Your task to perform on an android device: Install the News app Image 0: 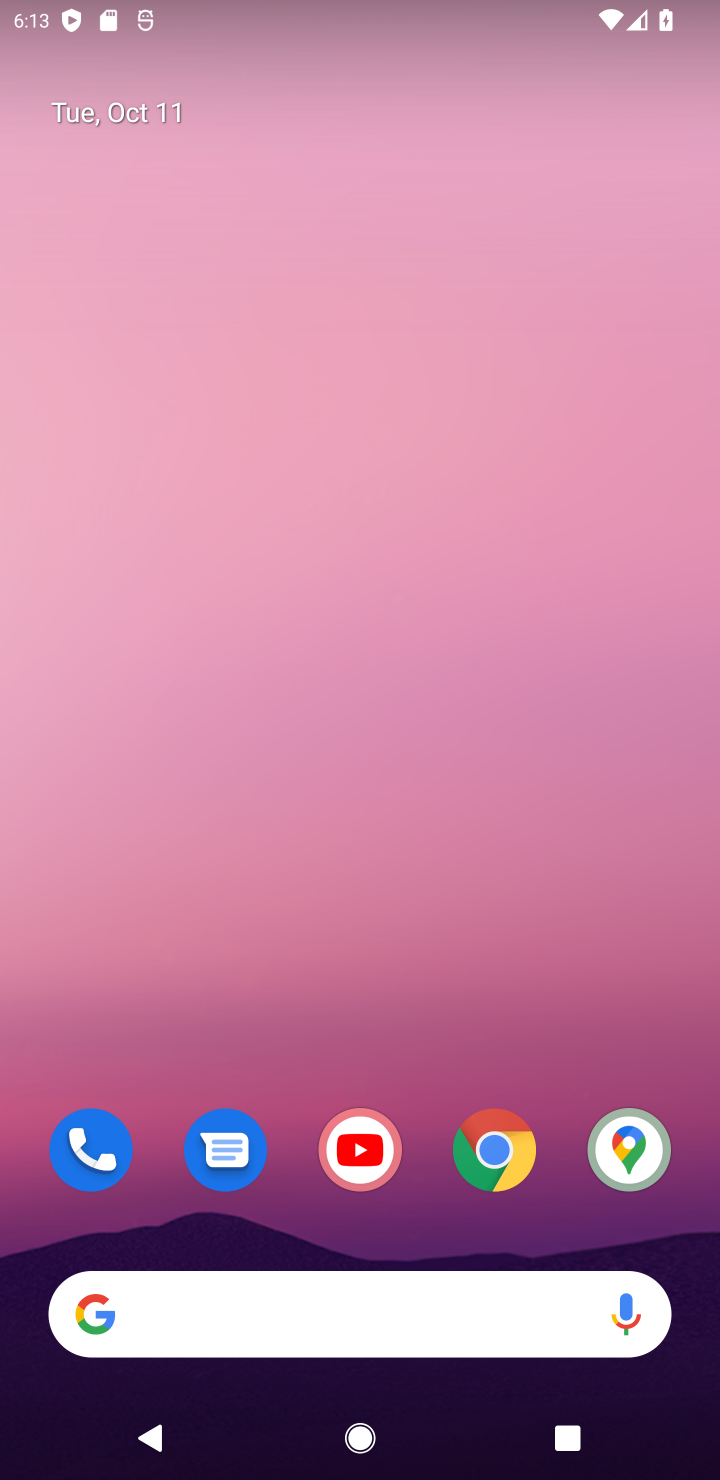
Step 0: drag from (555, 1207) to (568, 232)
Your task to perform on an android device: Install the News app Image 1: 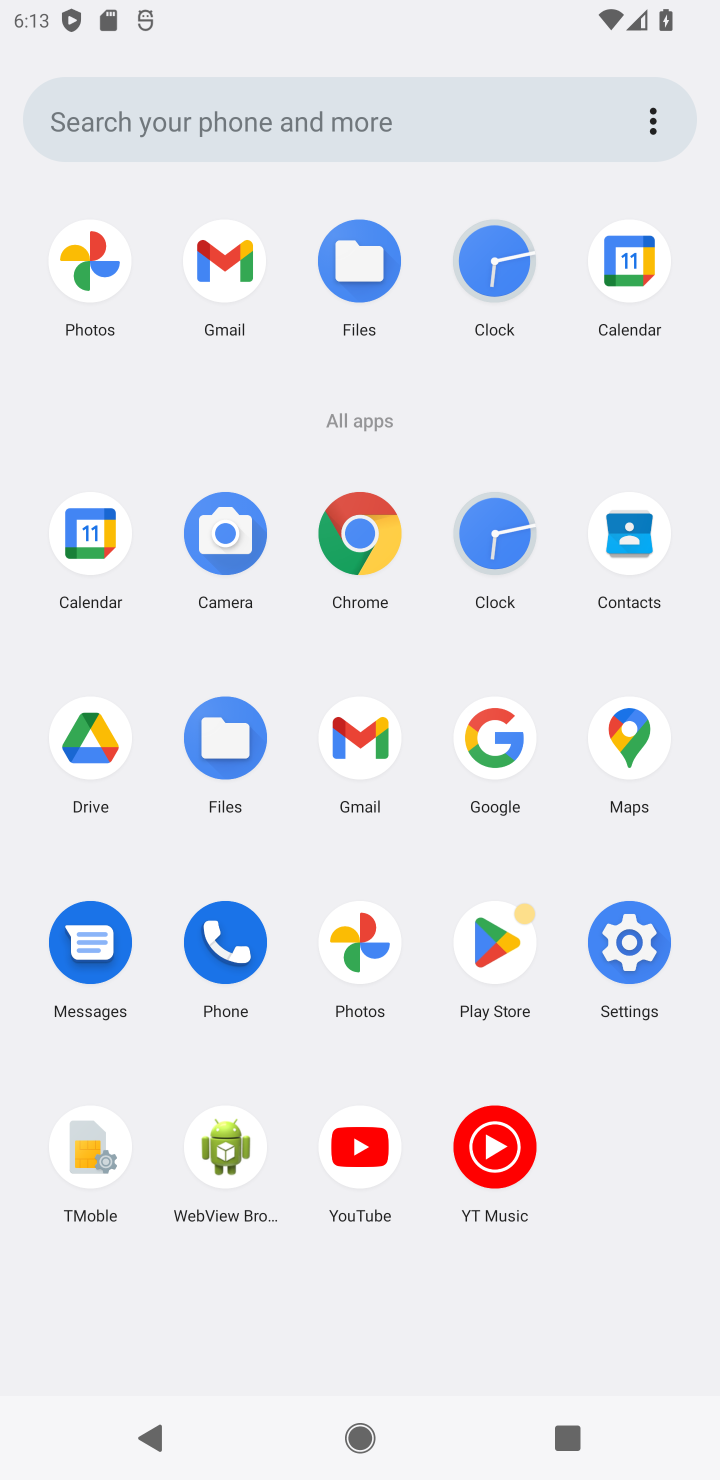
Step 1: click (497, 938)
Your task to perform on an android device: Install the News app Image 2: 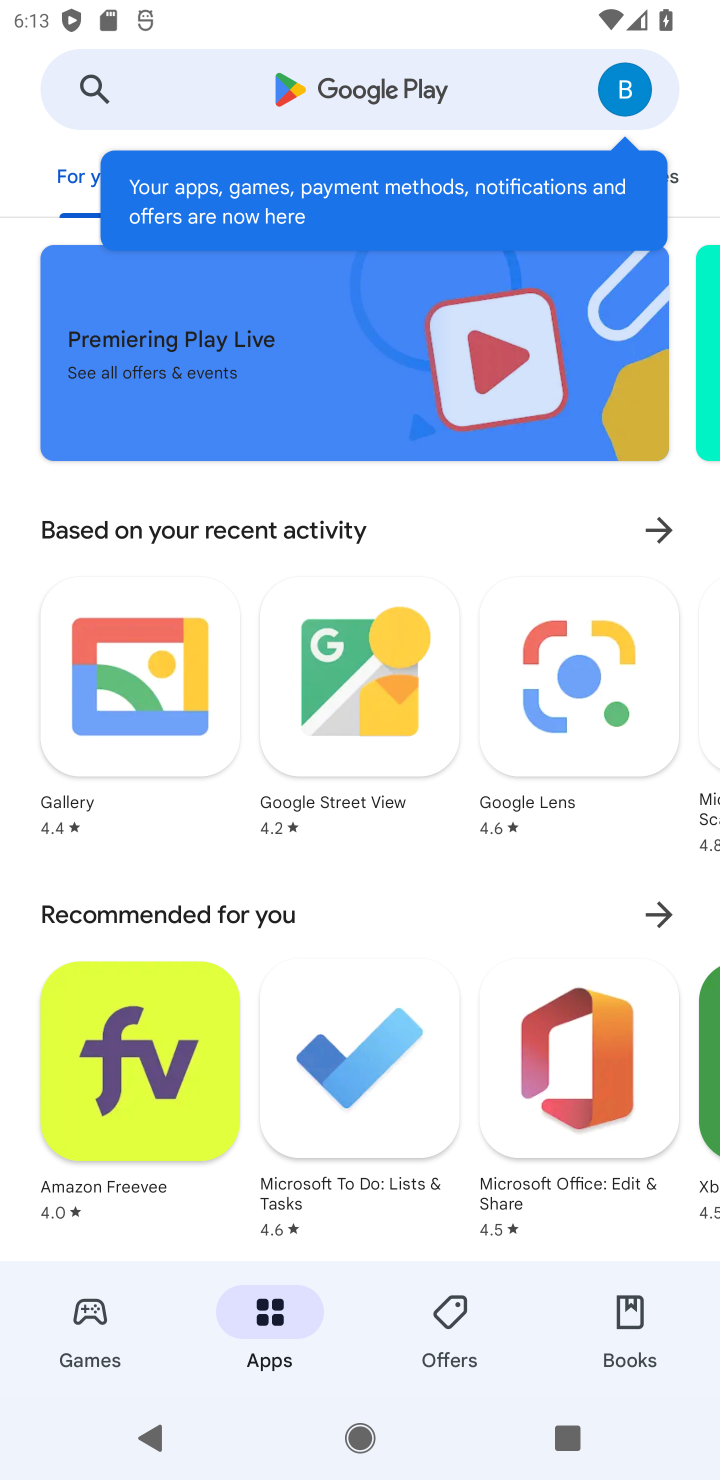
Step 2: click (324, 94)
Your task to perform on an android device: Install the News app Image 3: 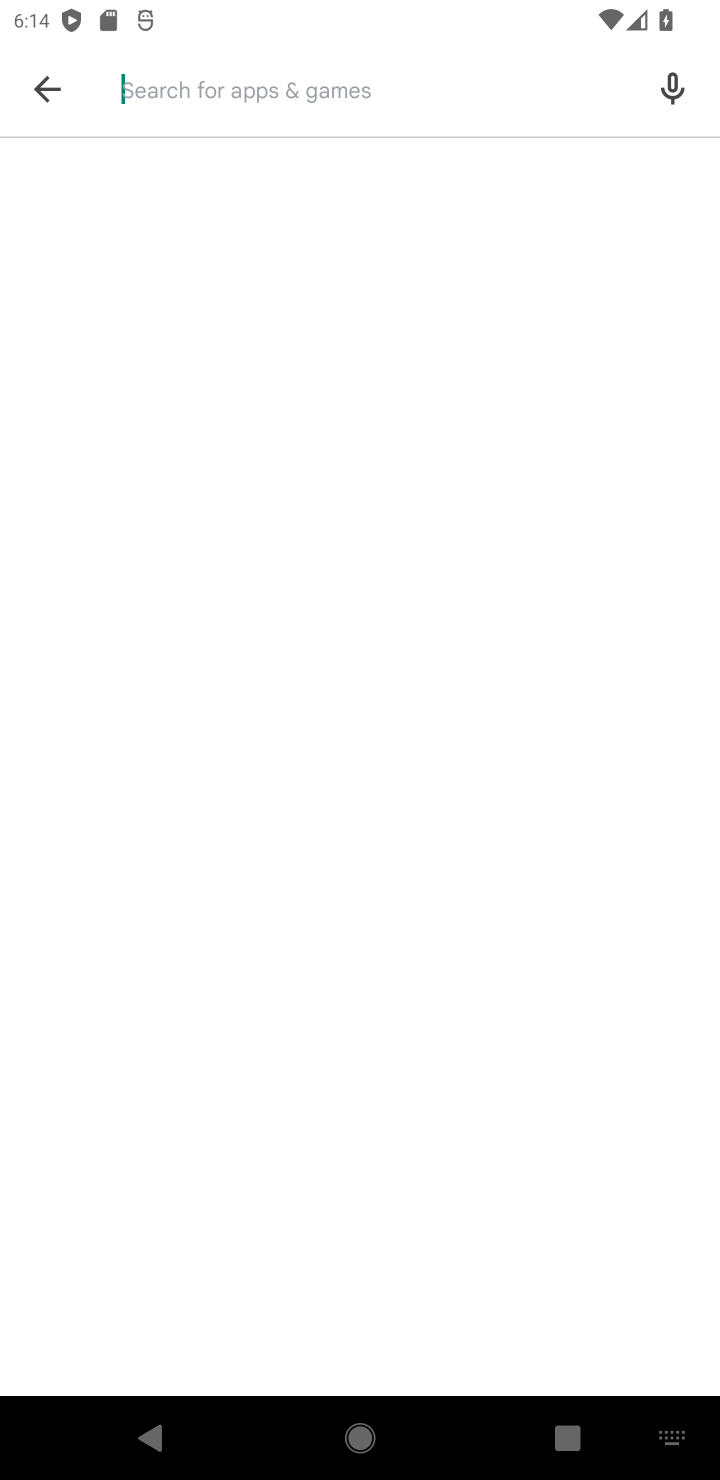
Step 3: type "news app"
Your task to perform on an android device: Install the News app Image 4: 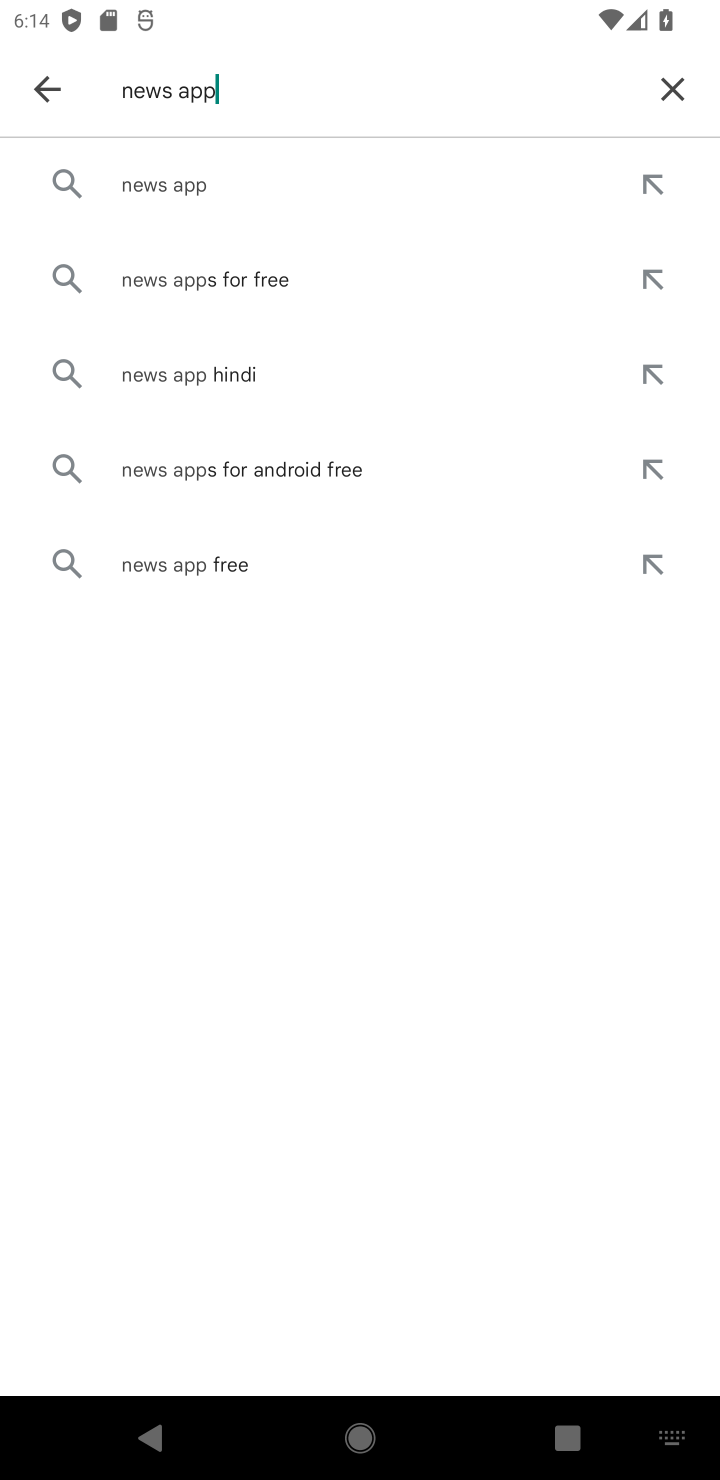
Step 4: click (142, 181)
Your task to perform on an android device: Install the News app Image 5: 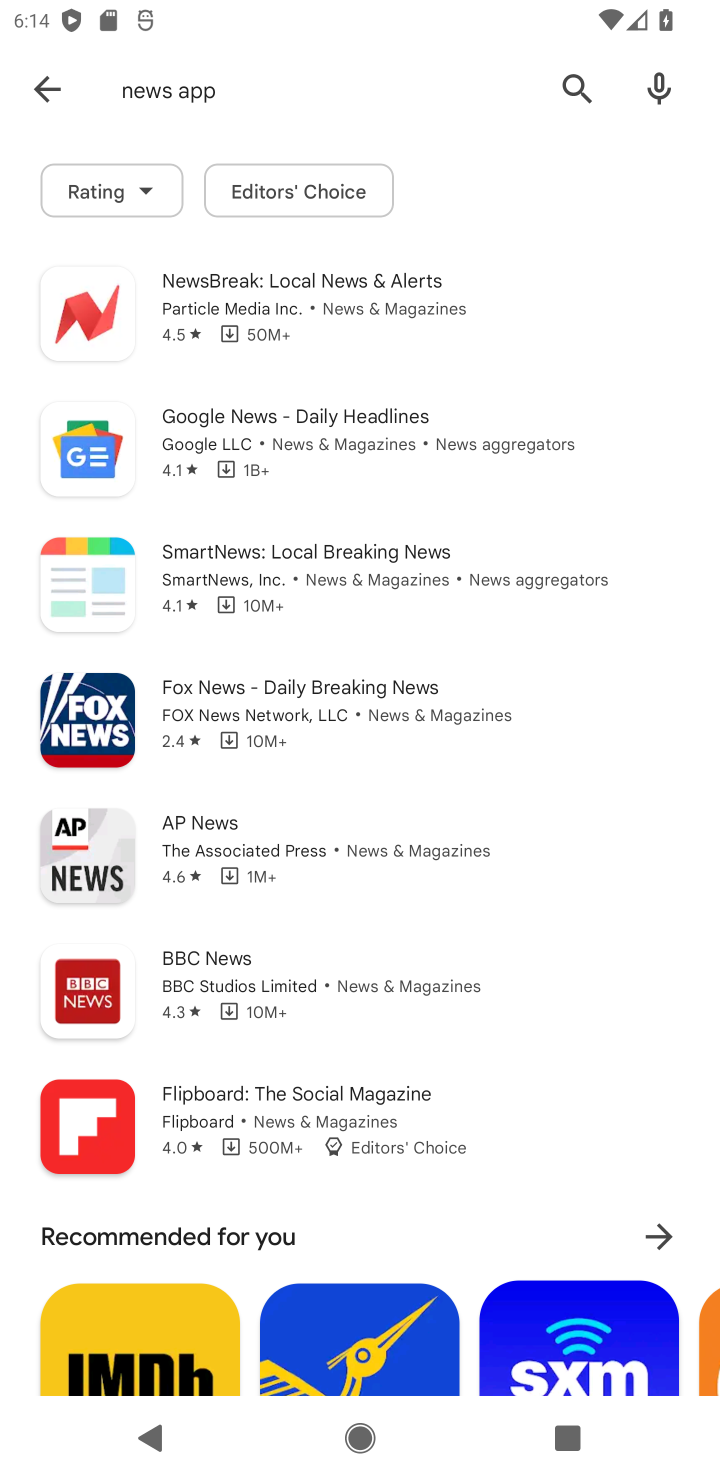
Step 5: click (242, 451)
Your task to perform on an android device: Install the News app Image 6: 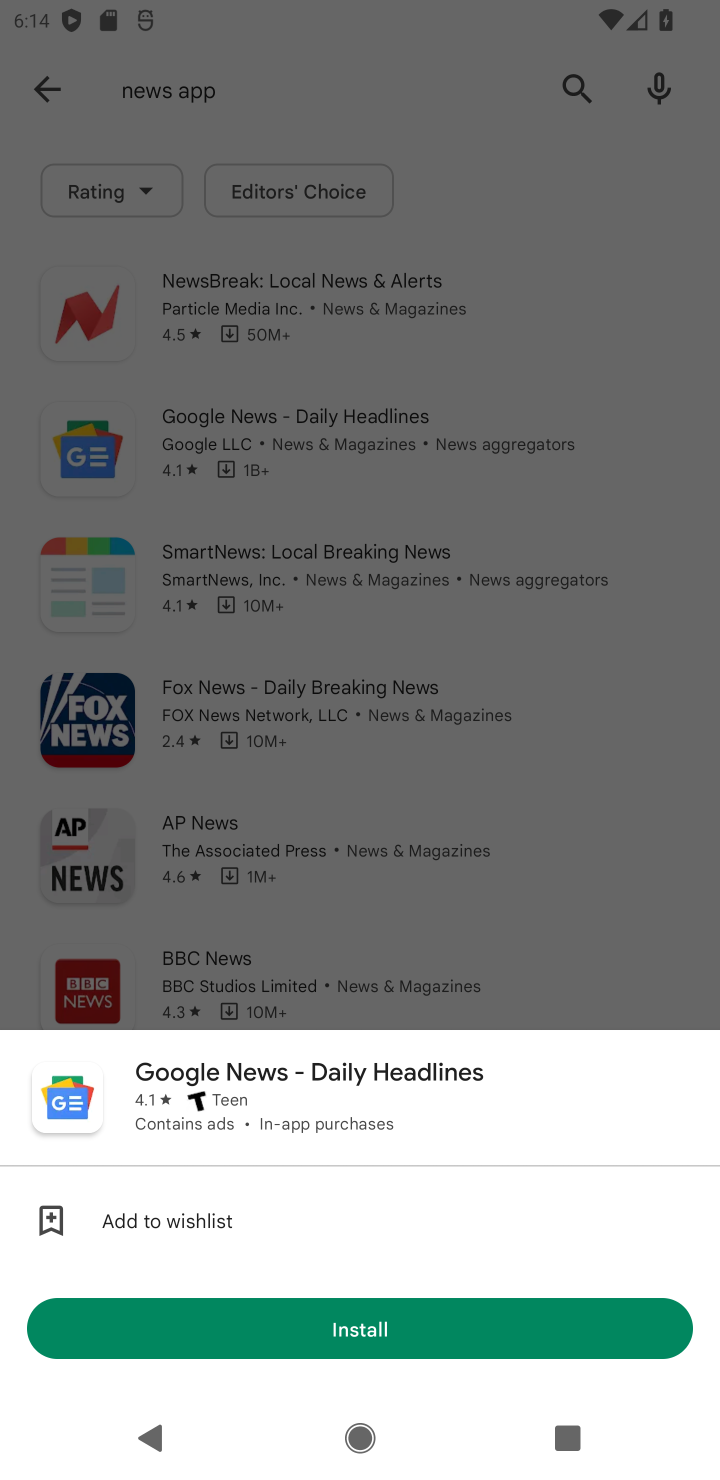
Step 6: click (331, 1340)
Your task to perform on an android device: Install the News app Image 7: 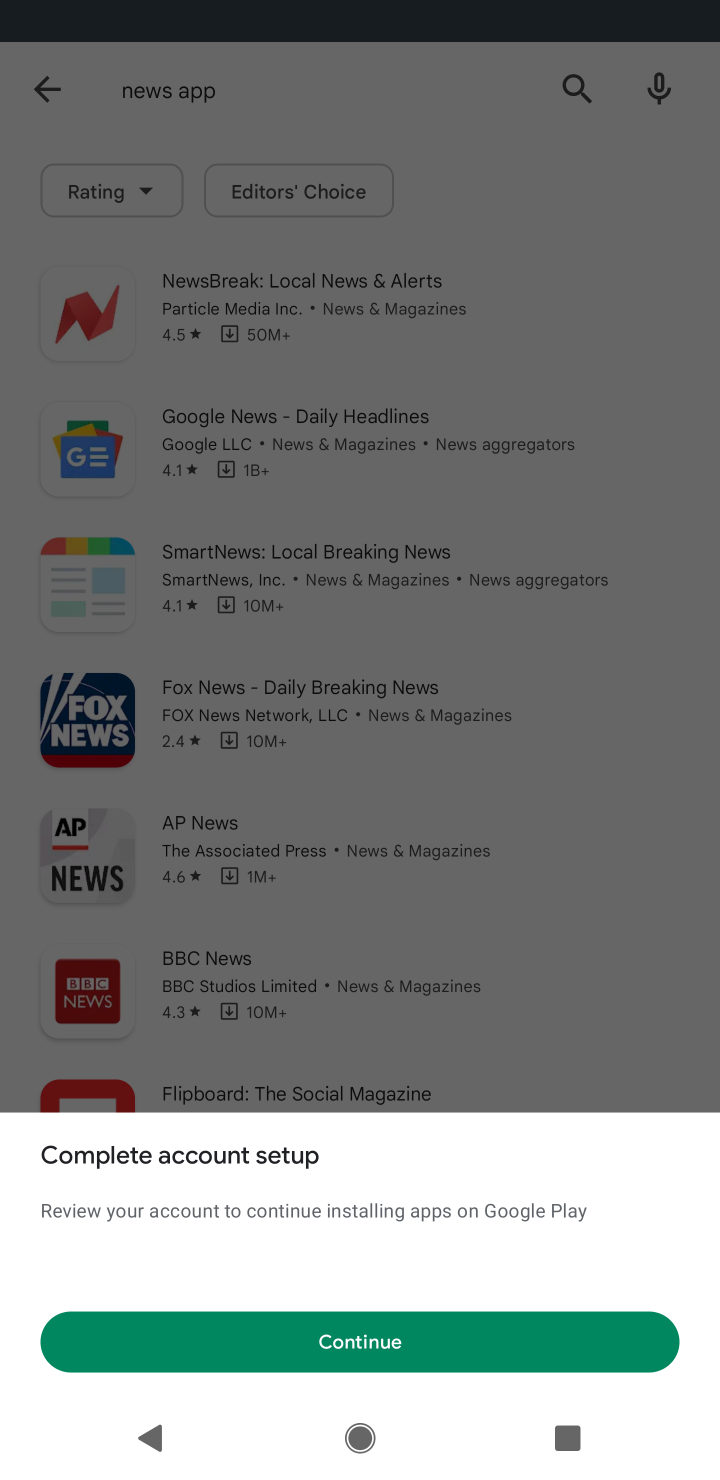
Step 7: click (328, 1341)
Your task to perform on an android device: Install the News app Image 8: 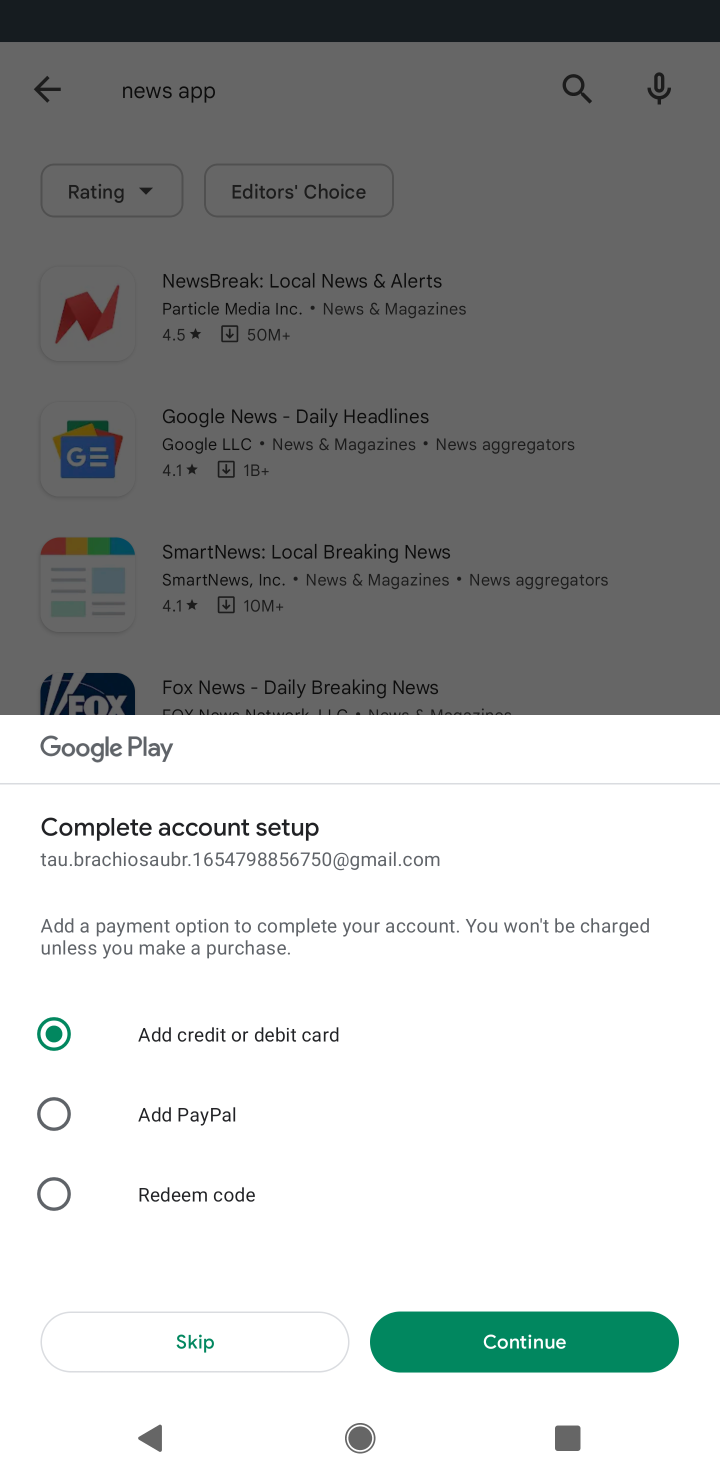
Step 8: click (199, 1343)
Your task to perform on an android device: Install the News app Image 9: 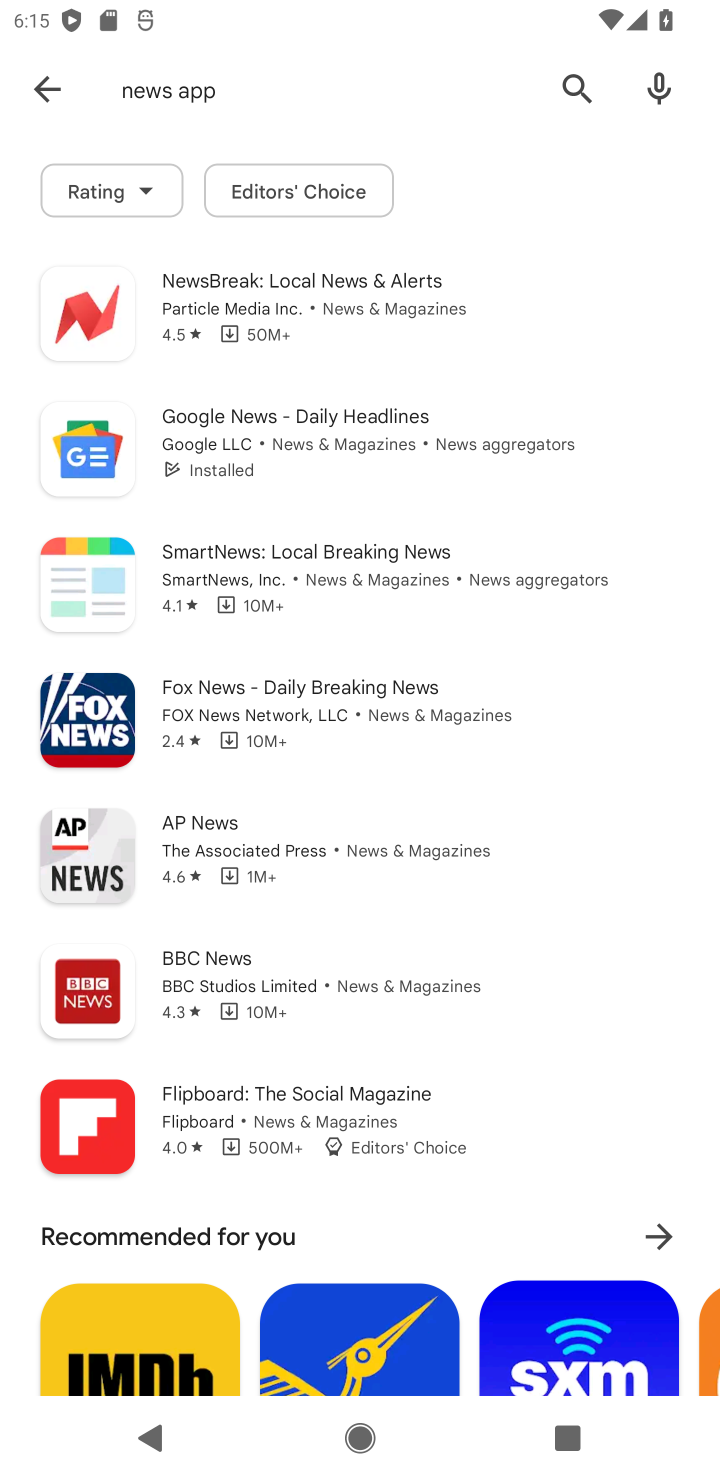
Step 9: task complete